Your task to perform on an android device: Open calendar and show me the first week of next month Image 0: 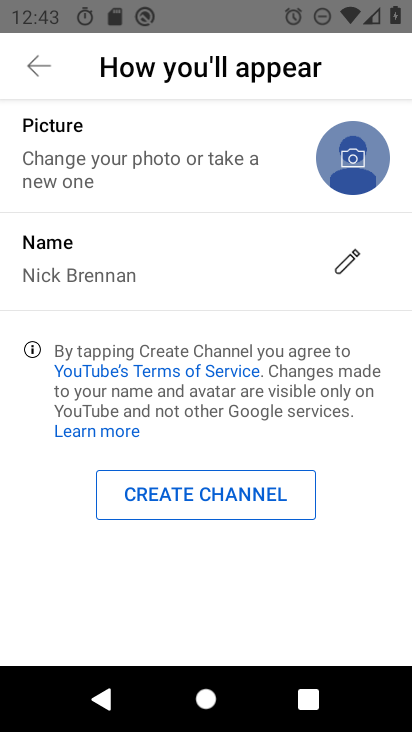
Step 0: press home button
Your task to perform on an android device: Open calendar and show me the first week of next month Image 1: 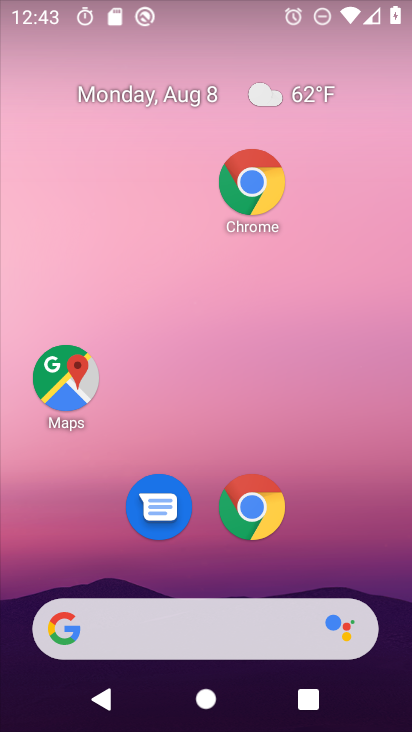
Step 1: drag from (317, 508) to (359, 11)
Your task to perform on an android device: Open calendar and show me the first week of next month Image 2: 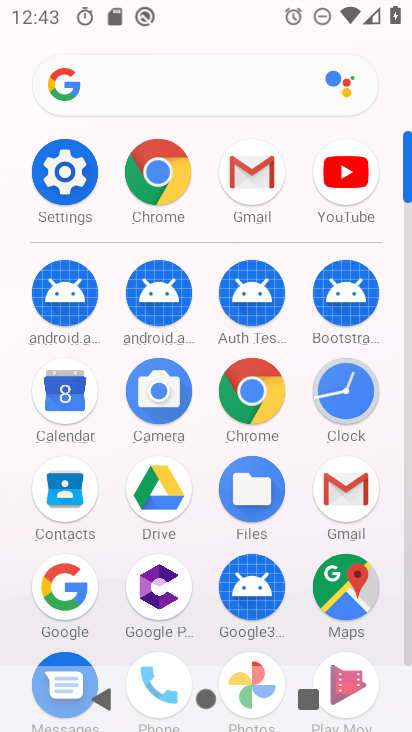
Step 2: click (64, 386)
Your task to perform on an android device: Open calendar and show me the first week of next month Image 3: 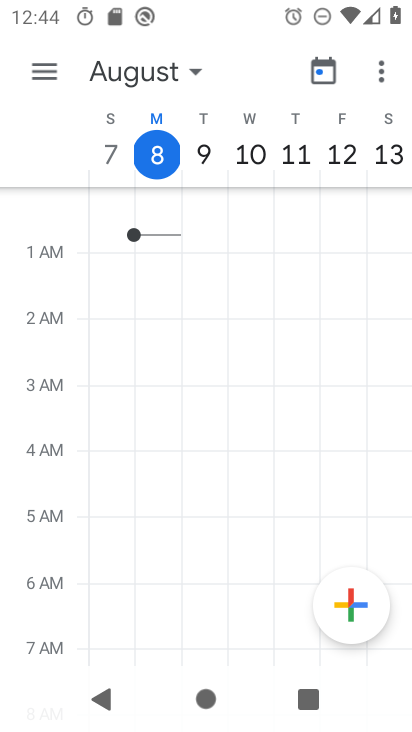
Step 3: click (101, 69)
Your task to perform on an android device: Open calendar and show me the first week of next month Image 4: 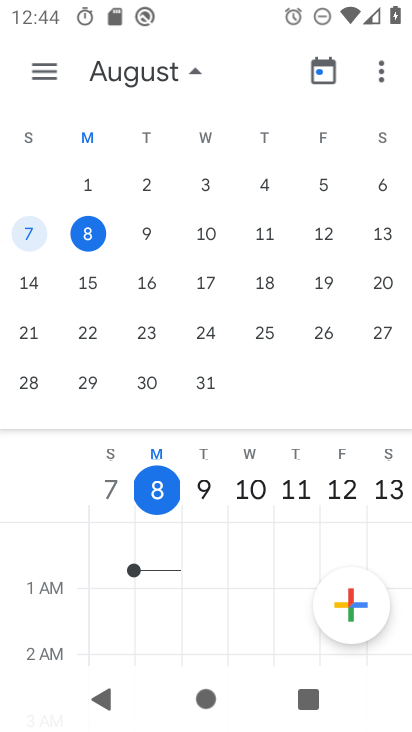
Step 4: drag from (374, 282) to (0, 256)
Your task to perform on an android device: Open calendar and show me the first week of next month Image 5: 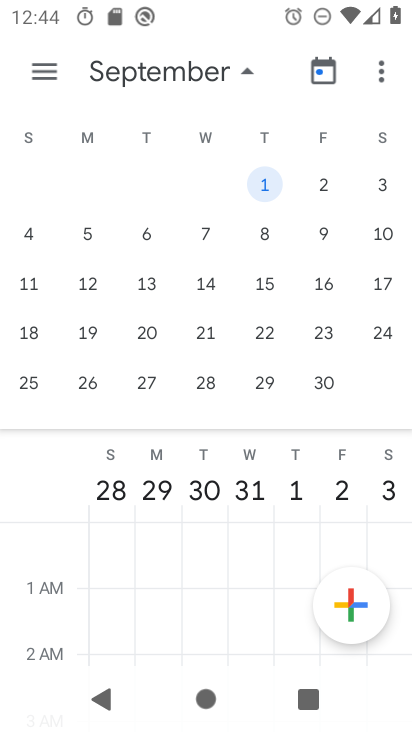
Step 5: click (96, 233)
Your task to perform on an android device: Open calendar and show me the first week of next month Image 6: 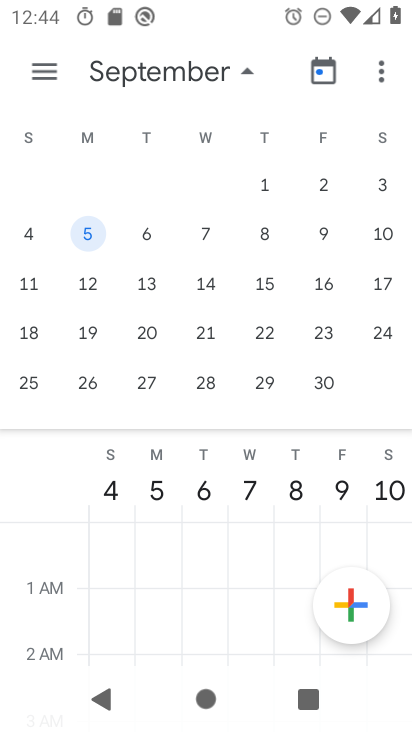
Step 6: task complete